Your task to perform on an android device: open wifi settings Image 0: 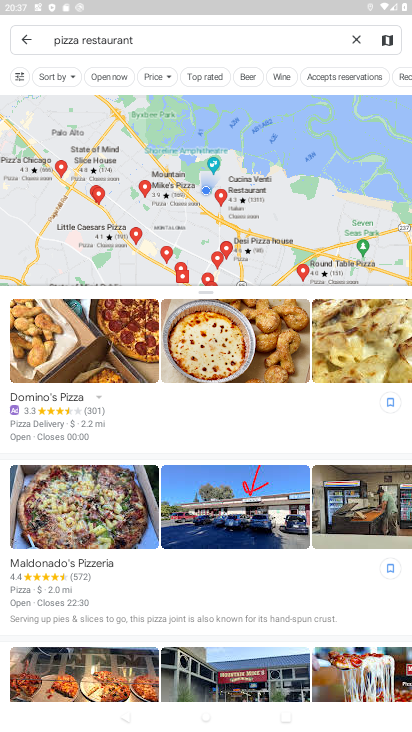
Step 0: press home button
Your task to perform on an android device: open wifi settings Image 1: 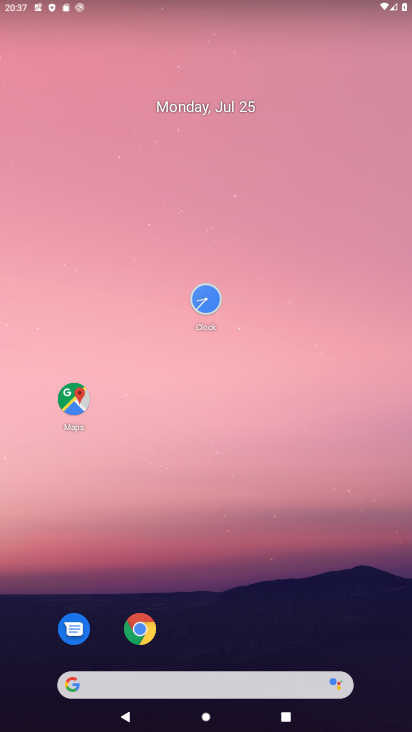
Step 1: drag from (207, 578) to (255, 2)
Your task to perform on an android device: open wifi settings Image 2: 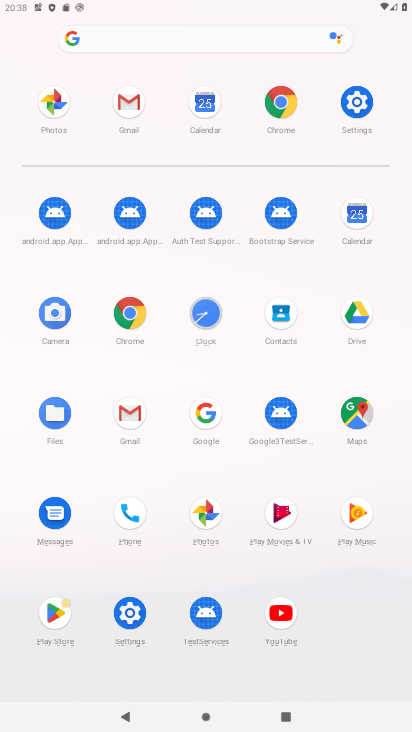
Step 2: click (123, 626)
Your task to perform on an android device: open wifi settings Image 3: 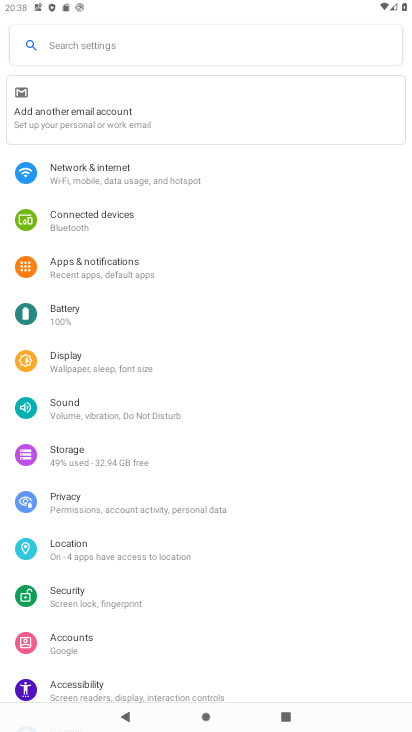
Step 3: click (132, 171)
Your task to perform on an android device: open wifi settings Image 4: 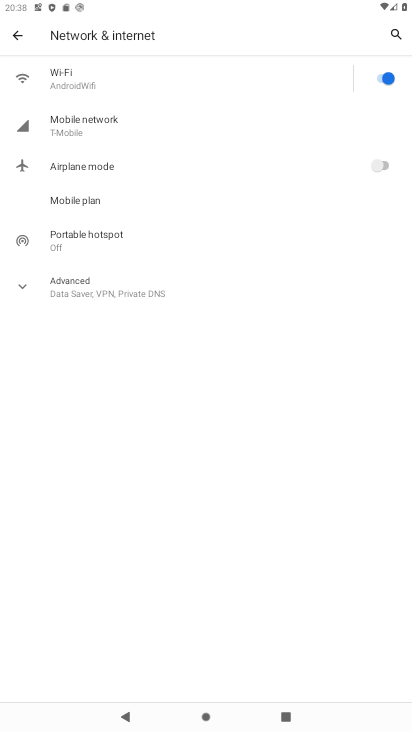
Step 4: click (89, 74)
Your task to perform on an android device: open wifi settings Image 5: 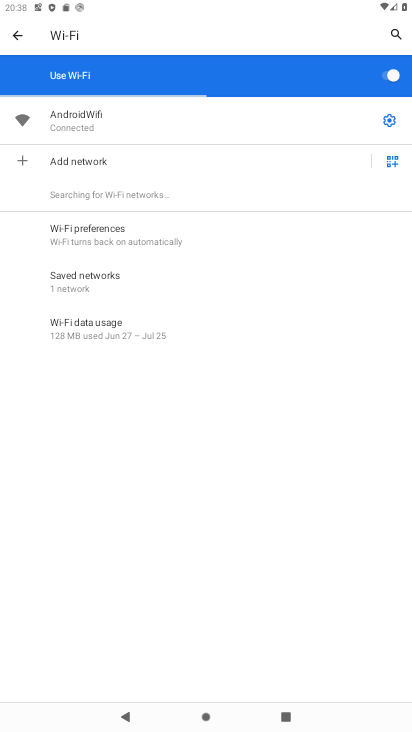
Step 5: task complete